Your task to perform on an android device: toggle javascript in the chrome app Image 0: 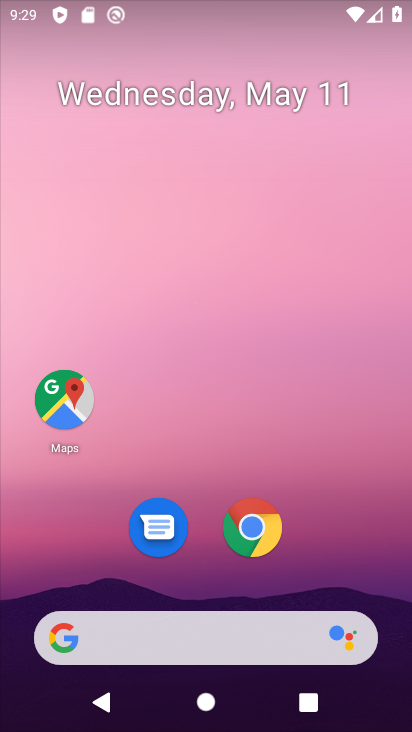
Step 0: click (251, 531)
Your task to perform on an android device: toggle javascript in the chrome app Image 1: 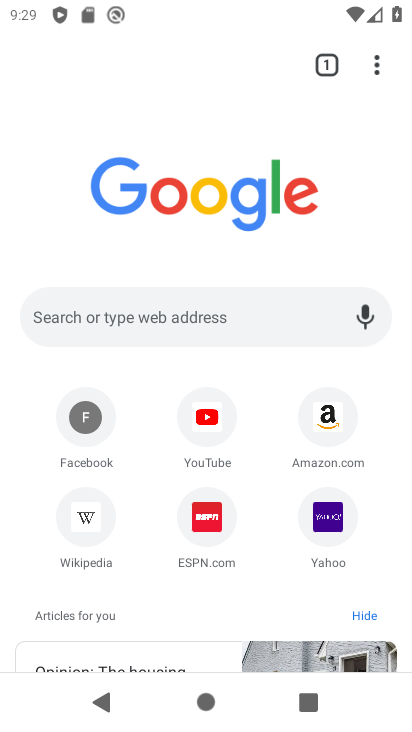
Step 1: drag from (382, 70) to (267, 543)
Your task to perform on an android device: toggle javascript in the chrome app Image 2: 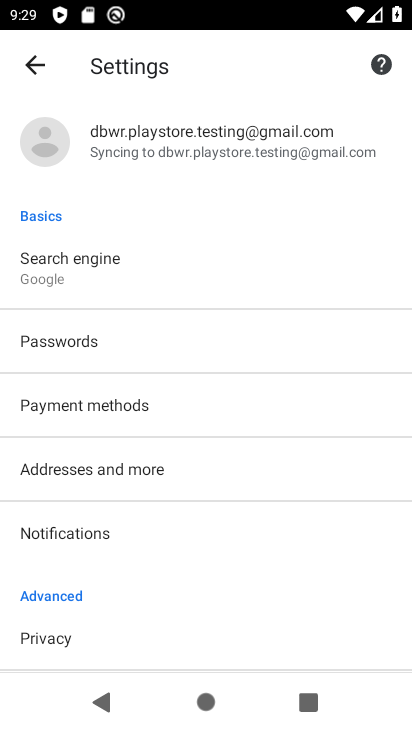
Step 2: drag from (199, 639) to (305, 236)
Your task to perform on an android device: toggle javascript in the chrome app Image 3: 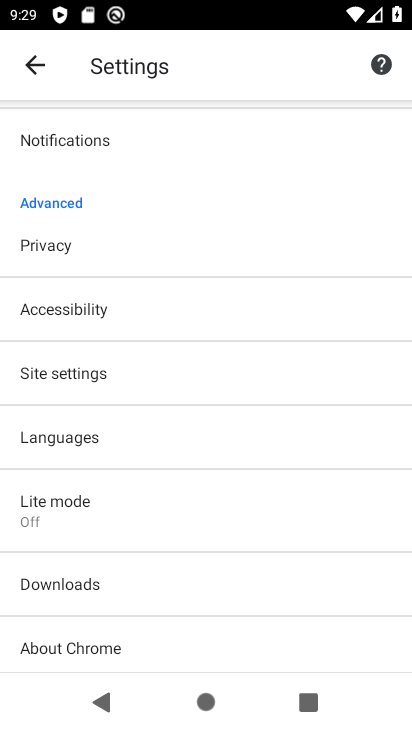
Step 3: click (139, 375)
Your task to perform on an android device: toggle javascript in the chrome app Image 4: 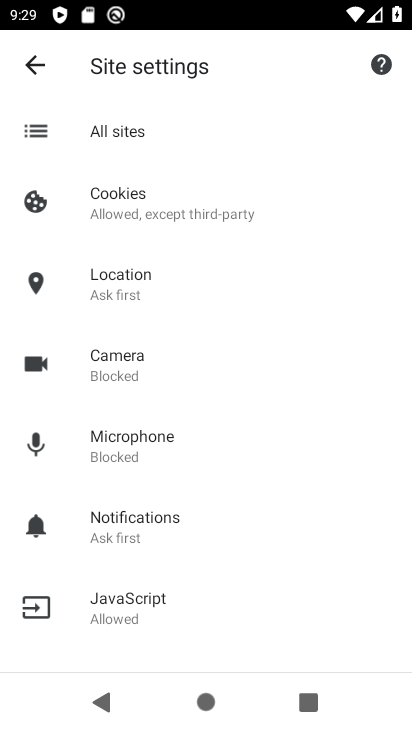
Step 4: click (196, 615)
Your task to perform on an android device: toggle javascript in the chrome app Image 5: 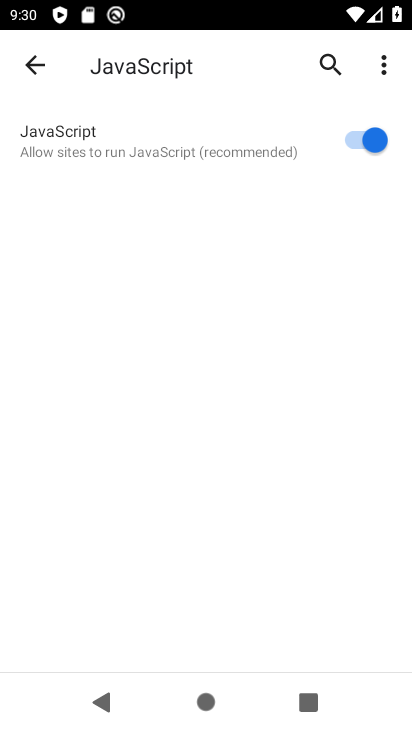
Step 5: click (347, 130)
Your task to perform on an android device: toggle javascript in the chrome app Image 6: 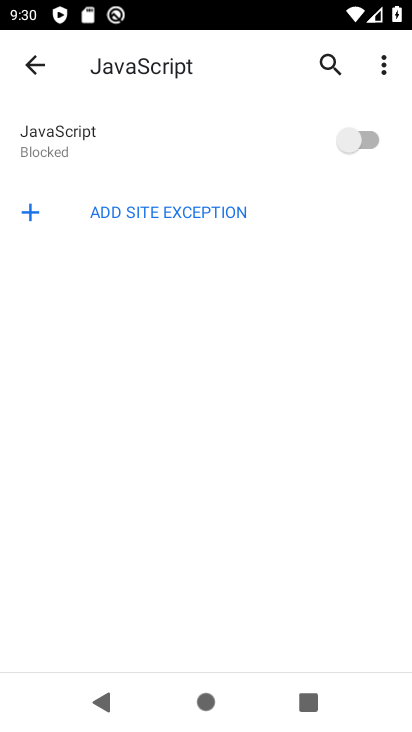
Step 6: task complete